Your task to perform on an android device: Search for bose quietcomfort 35 on target.com, select the first entry, and add it to the cart. Image 0: 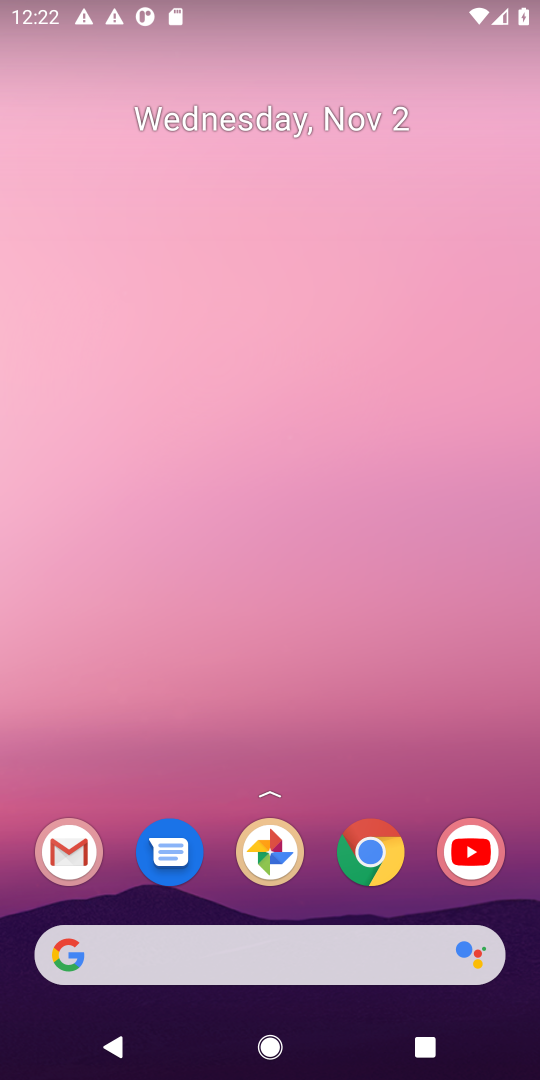
Step 0: press home button
Your task to perform on an android device: Search for bose quietcomfort 35 on target.com, select the first entry, and add it to the cart. Image 1: 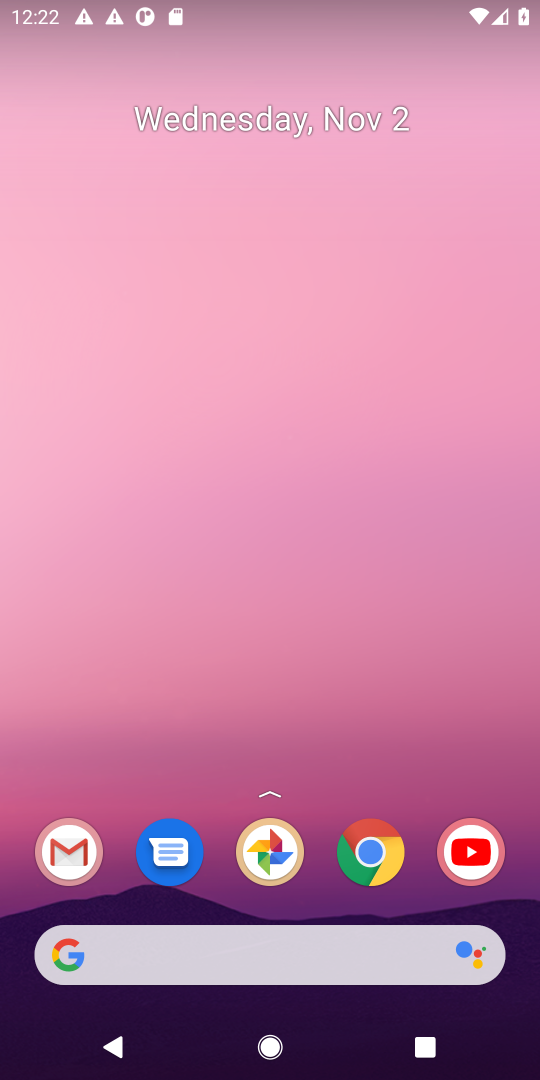
Step 1: click (64, 958)
Your task to perform on an android device: Search for bose quietcomfort 35 on target.com, select the first entry, and add it to the cart. Image 2: 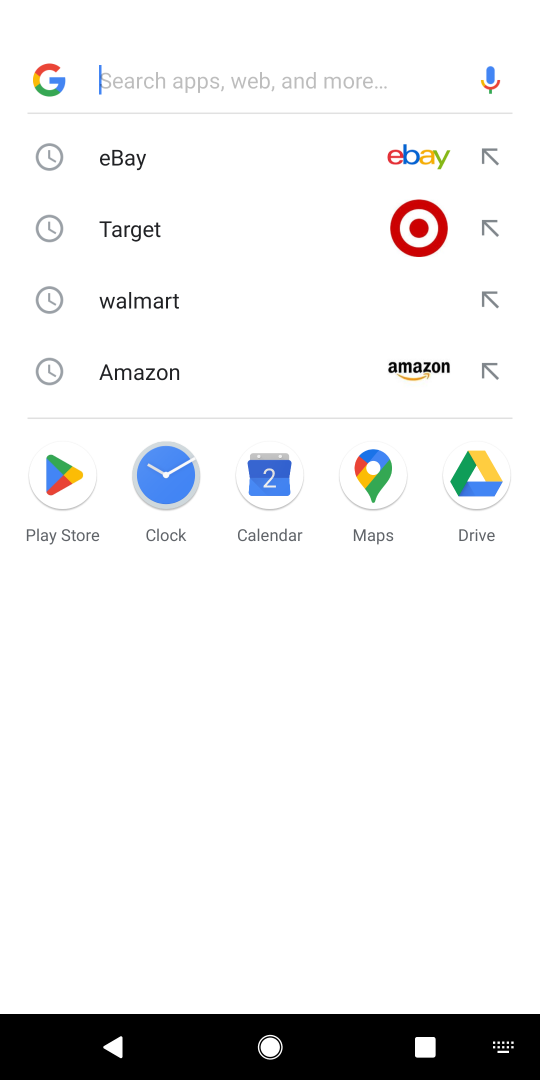
Step 2: click (411, 229)
Your task to perform on an android device: Search for bose quietcomfort 35 on target.com, select the first entry, and add it to the cart. Image 3: 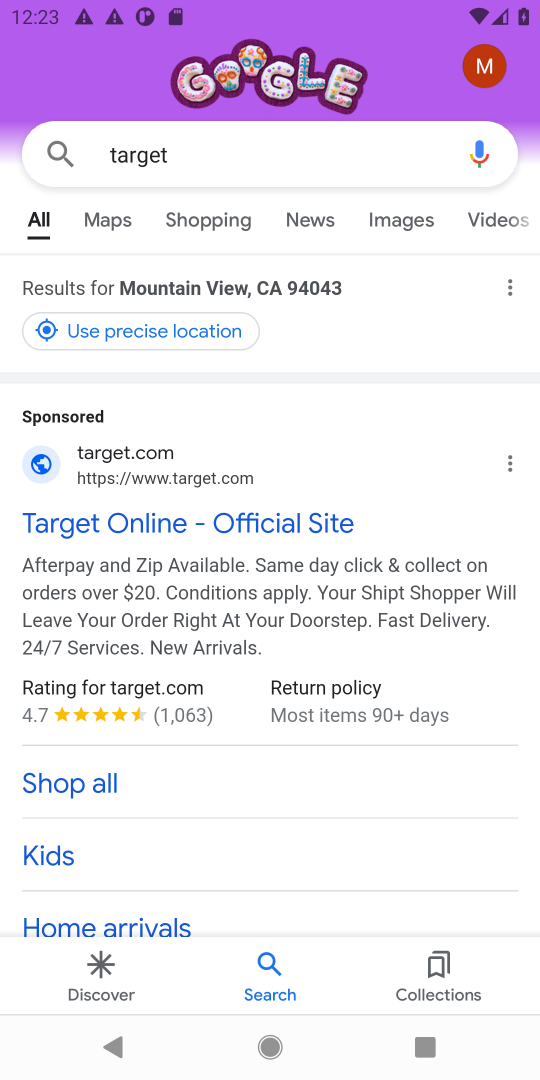
Step 3: drag from (266, 846) to (356, 325)
Your task to perform on an android device: Search for bose quietcomfort 35 on target.com, select the first entry, and add it to the cart. Image 4: 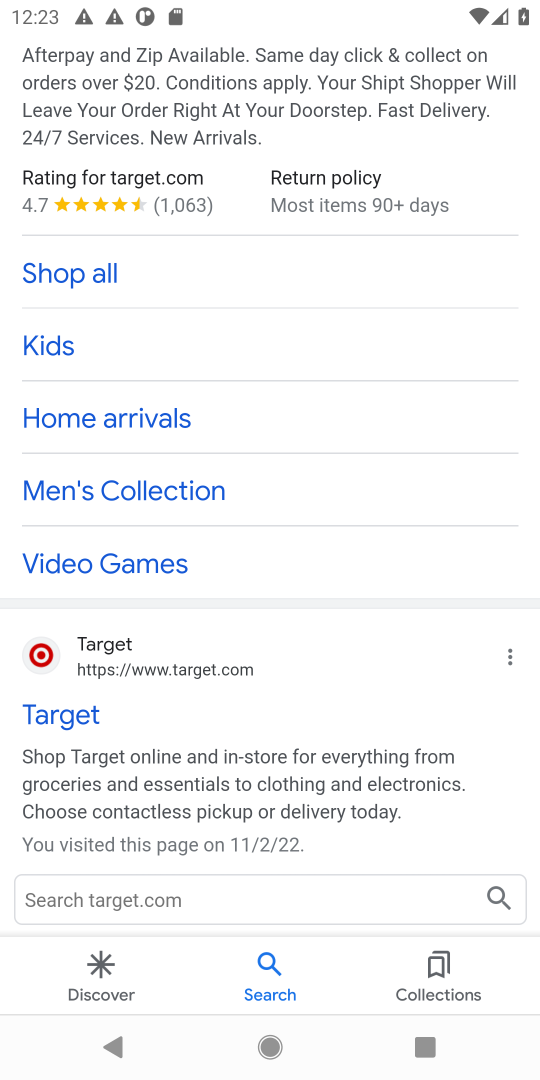
Step 4: click (67, 720)
Your task to perform on an android device: Search for bose quietcomfort 35 on target.com, select the first entry, and add it to the cart. Image 5: 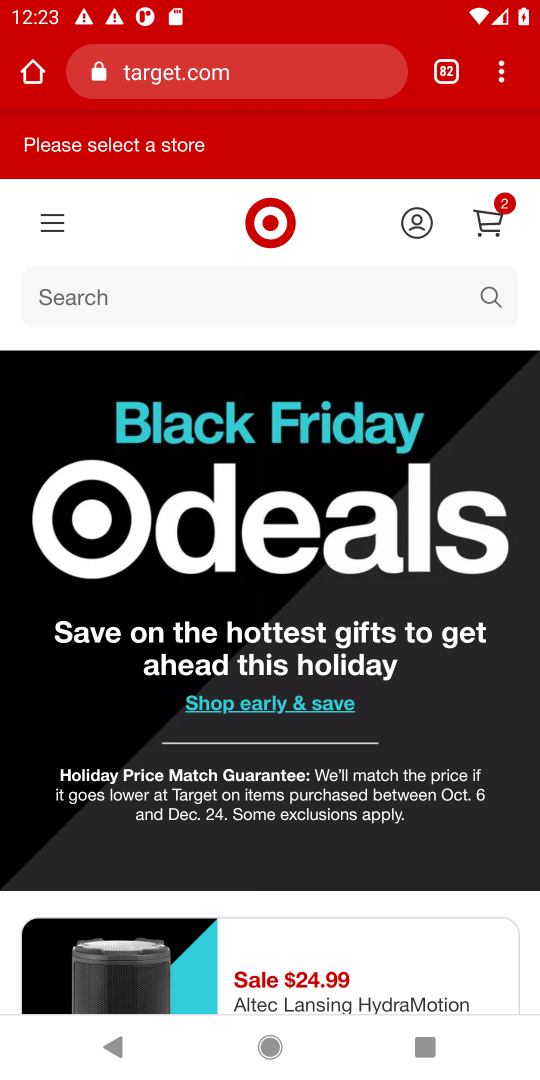
Step 5: click (166, 297)
Your task to perform on an android device: Search for bose quietcomfort 35 on target.com, select the first entry, and add it to the cart. Image 6: 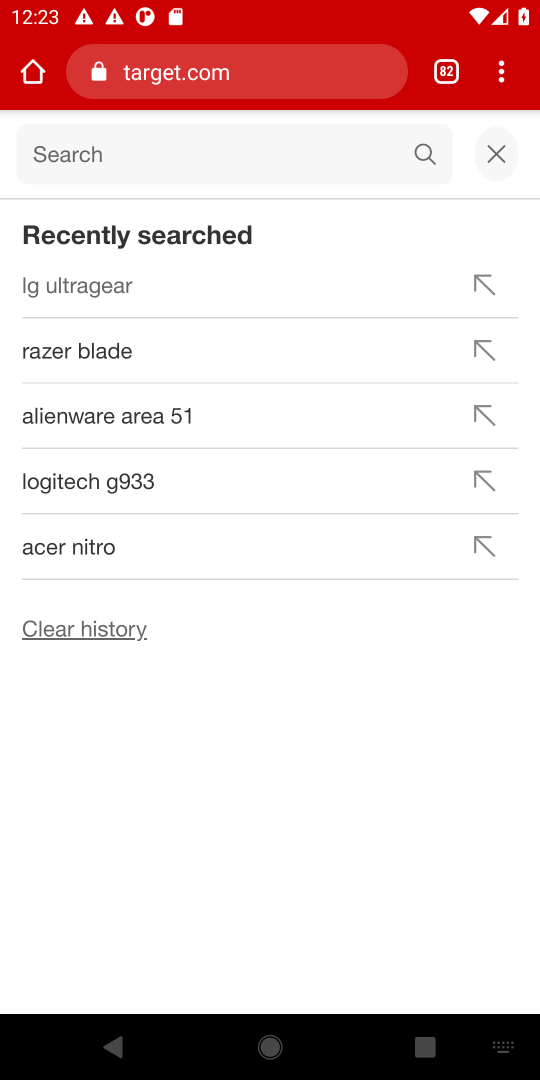
Step 6: type "bose quietcomfort 35"
Your task to perform on an android device: Search for bose quietcomfort 35 on target.com, select the first entry, and add it to the cart. Image 7: 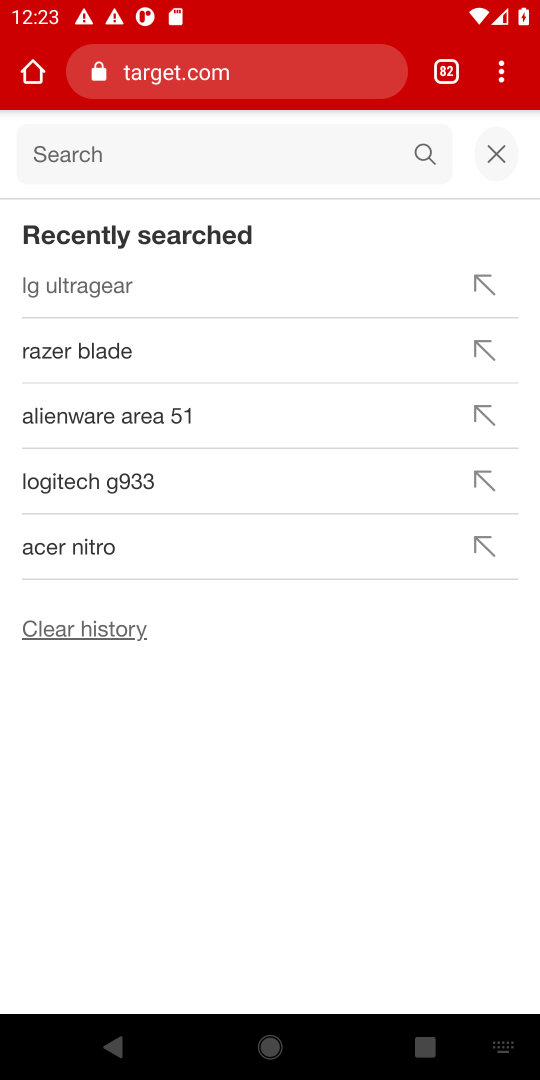
Step 7: click (83, 150)
Your task to perform on an android device: Search for bose quietcomfort 35 on target.com, select the first entry, and add it to the cart. Image 8: 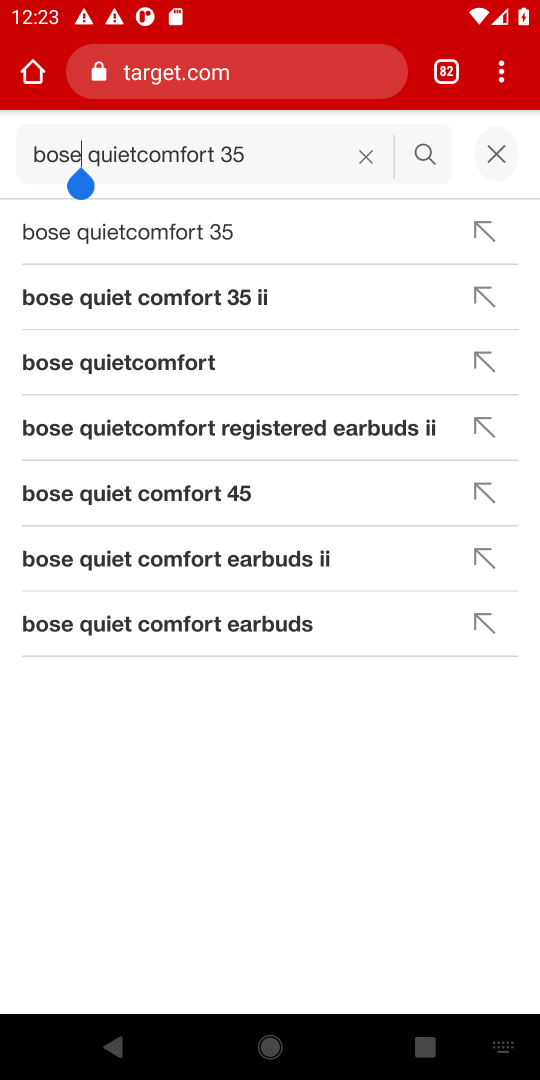
Step 8: press enter
Your task to perform on an android device: Search for bose quietcomfort 35 on target.com, select the first entry, and add it to the cart. Image 9: 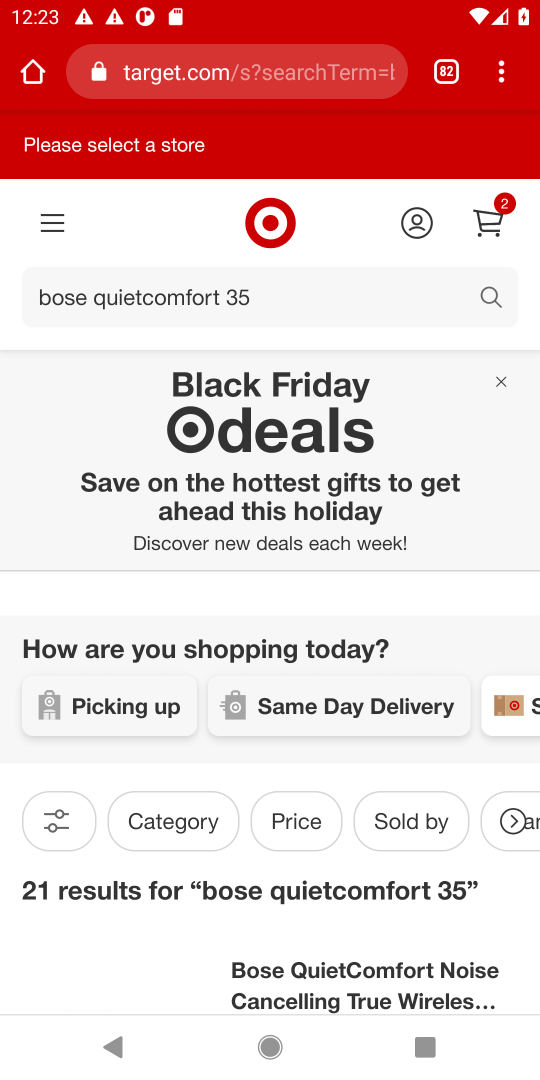
Step 9: press enter
Your task to perform on an android device: Search for bose quietcomfort 35 on target.com, select the first entry, and add it to the cart. Image 10: 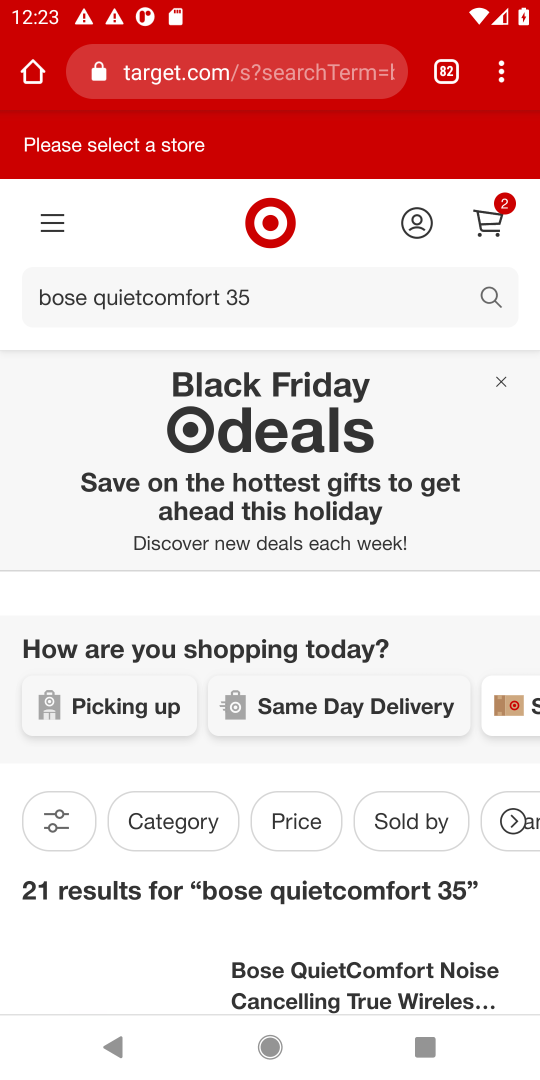
Step 10: task complete